Your task to perform on an android device: Open the web browser Image 0: 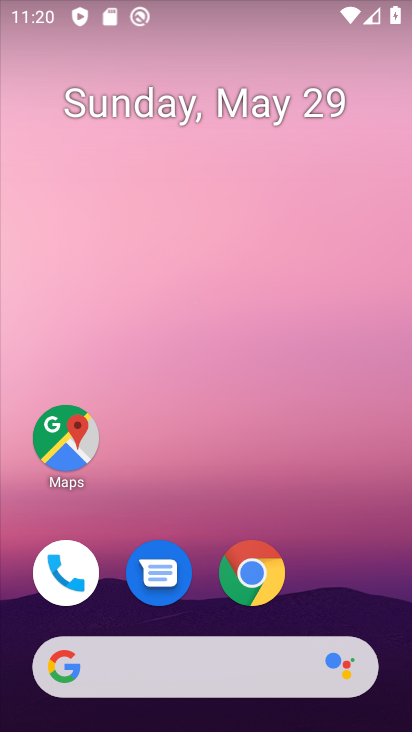
Step 0: click (237, 567)
Your task to perform on an android device: Open the web browser Image 1: 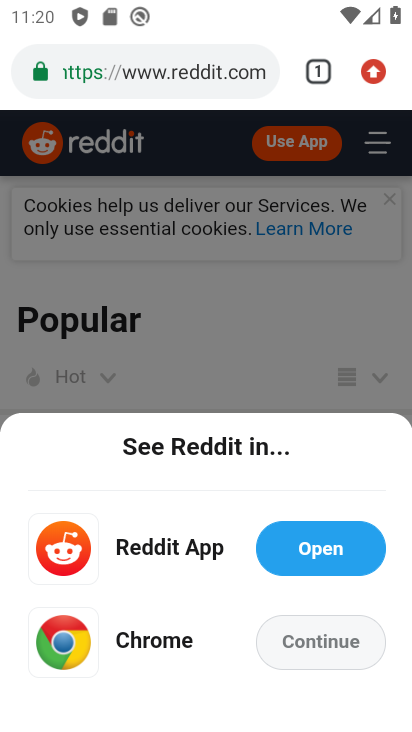
Step 1: click (316, 70)
Your task to perform on an android device: Open the web browser Image 2: 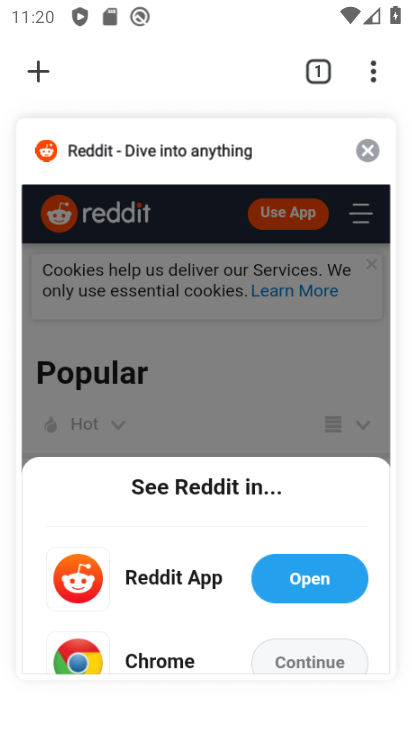
Step 2: click (38, 71)
Your task to perform on an android device: Open the web browser Image 3: 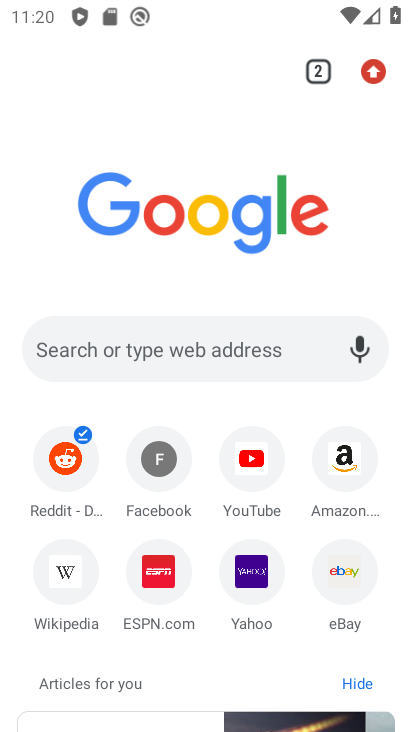
Step 3: click (210, 354)
Your task to perform on an android device: Open the web browser Image 4: 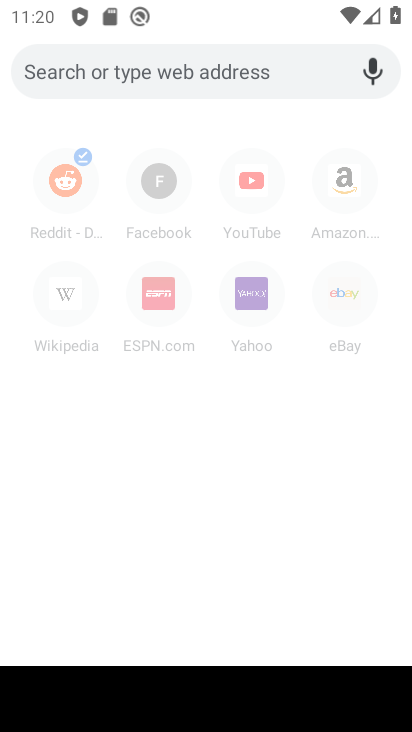
Step 4: task complete